Your task to perform on an android device: turn on showing notifications on the lock screen Image 0: 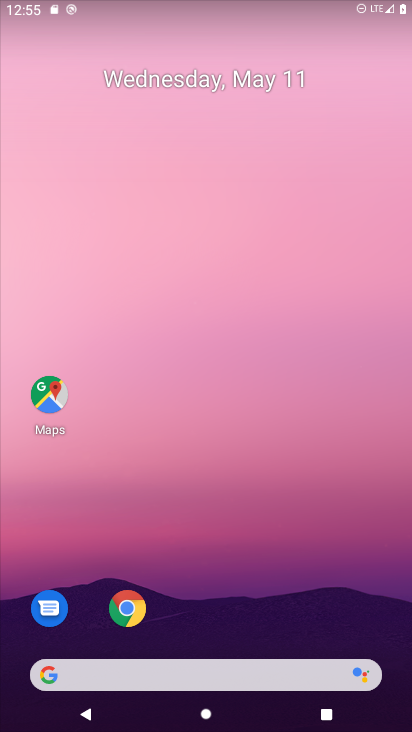
Step 0: drag from (265, 564) to (231, 39)
Your task to perform on an android device: turn on showing notifications on the lock screen Image 1: 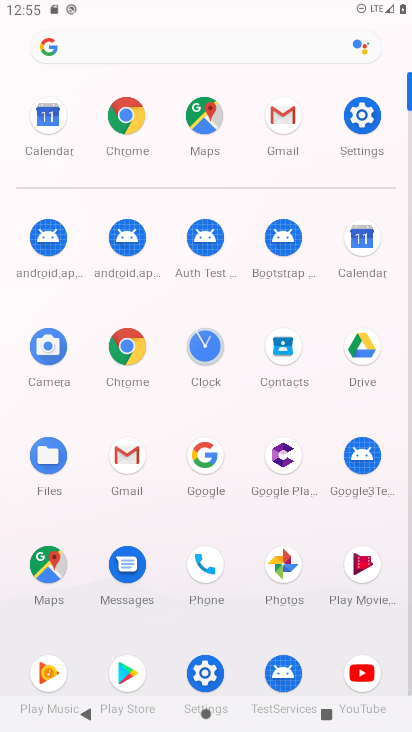
Step 1: click (365, 110)
Your task to perform on an android device: turn on showing notifications on the lock screen Image 2: 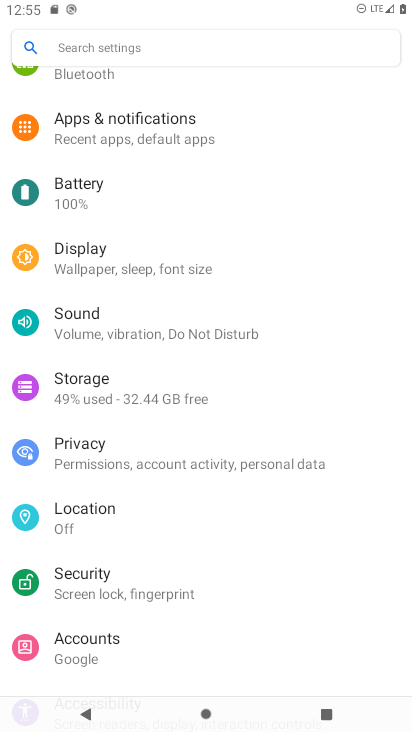
Step 2: click (223, 134)
Your task to perform on an android device: turn on showing notifications on the lock screen Image 3: 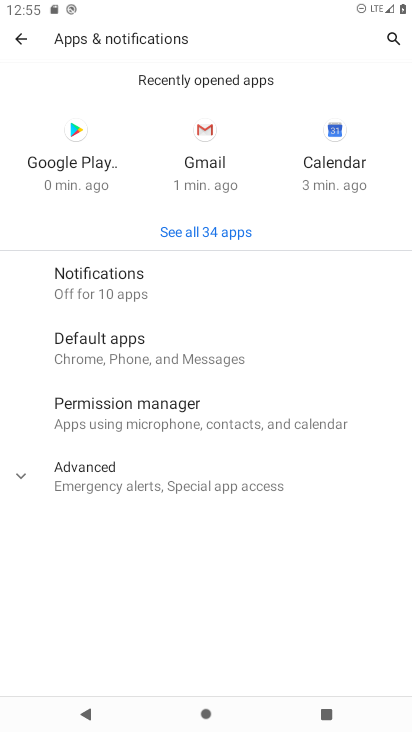
Step 3: click (82, 283)
Your task to perform on an android device: turn on showing notifications on the lock screen Image 4: 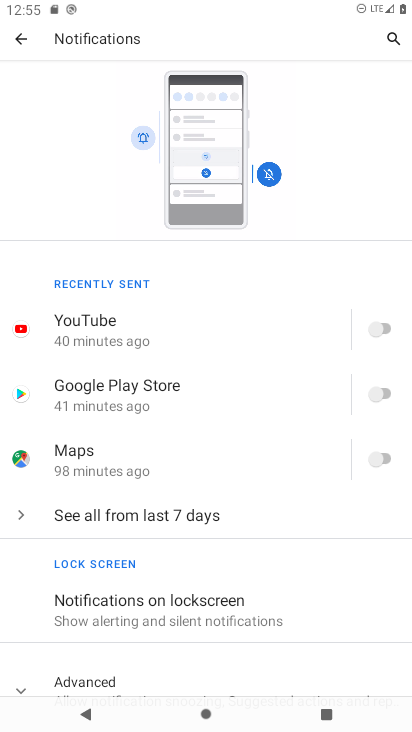
Step 4: task complete